Your task to perform on an android device: Go to display settings Image 0: 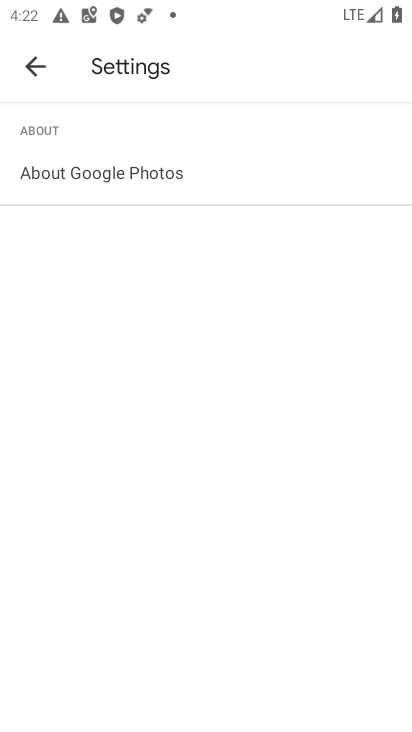
Step 0: press home button
Your task to perform on an android device: Go to display settings Image 1: 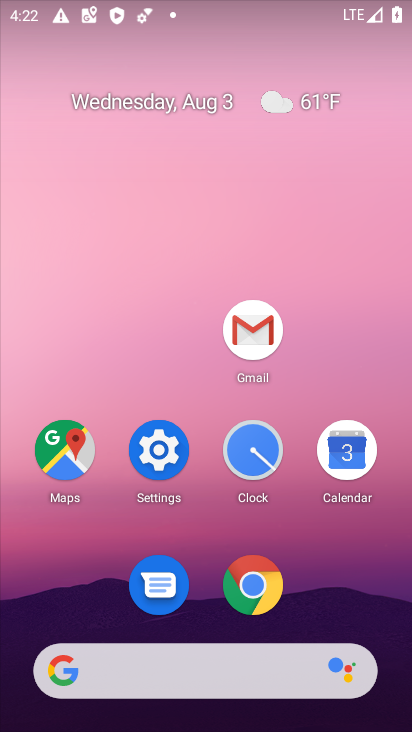
Step 1: drag from (399, 706) to (358, 173)
Your task to perform on an android device: Go to display settings Image 2: 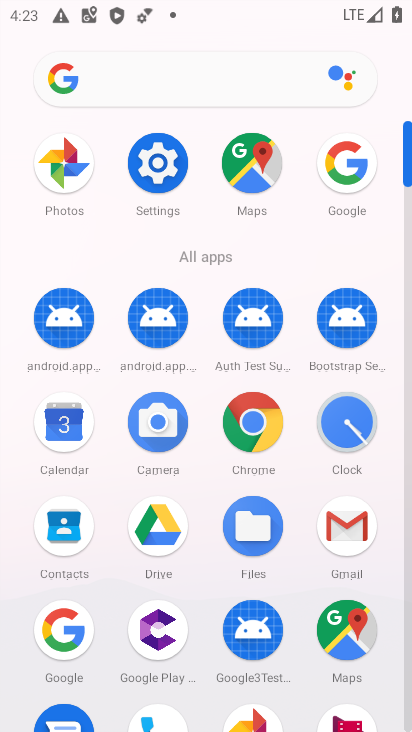
Step 2: click (162, 166)
Your task to perform on an android device: Go to display settings Image 3: 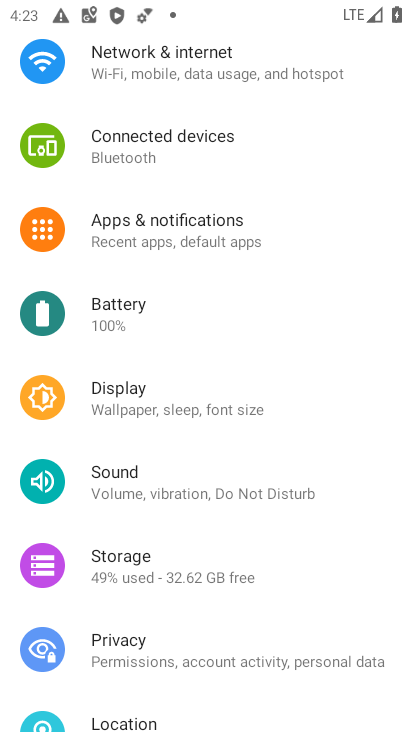
Step 3: click (95, 397)
Your task to perform on an android device: Go to display settings Image 4: 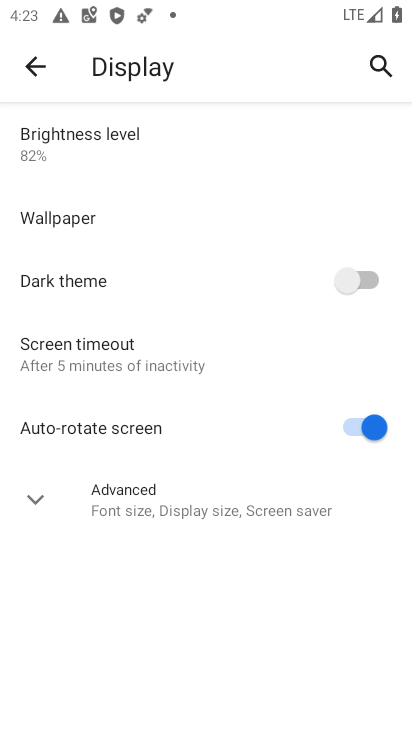
Step 4: click (72, 352)
Your task to perform on an android device: Go to display settings Image 5: 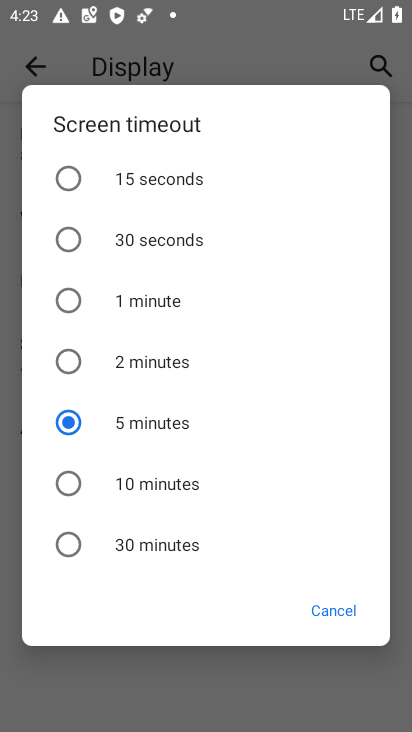
Step 5: click (330, 611)
Your task to perform on an android device: Go to display settings Image 6: 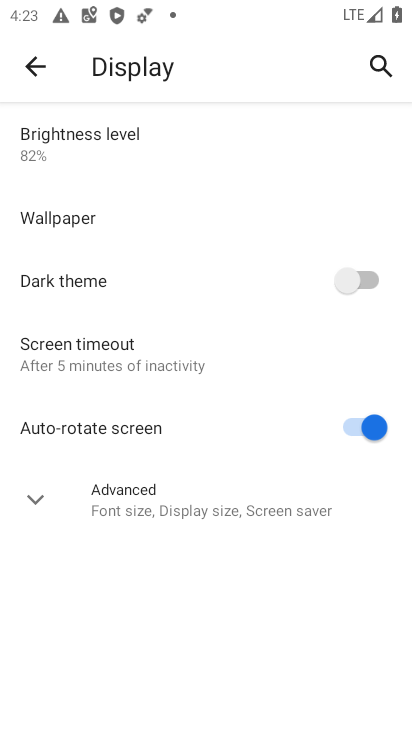
Step 6: click (31, 503)
Your task to perform on an android device: Go to display settings Image 7: 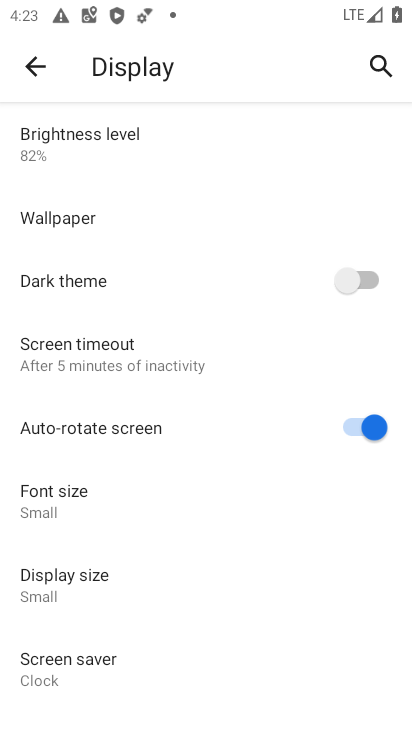
Step 7: task complete